Your task to perform on an android device: Open Google Image 0: 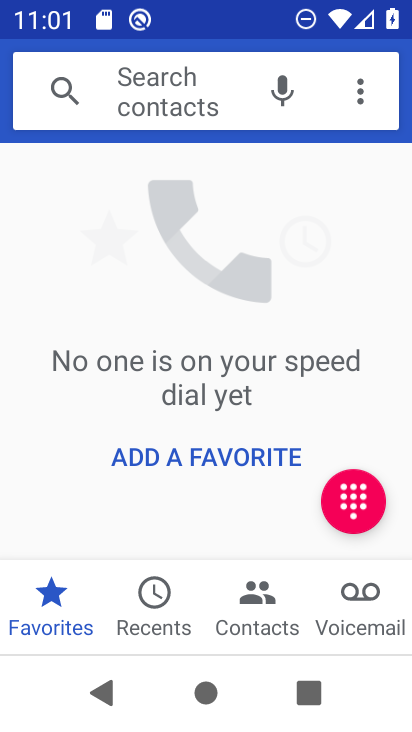
Step 0: press home button
Your task to perform on an android device: Open Google Image 1: 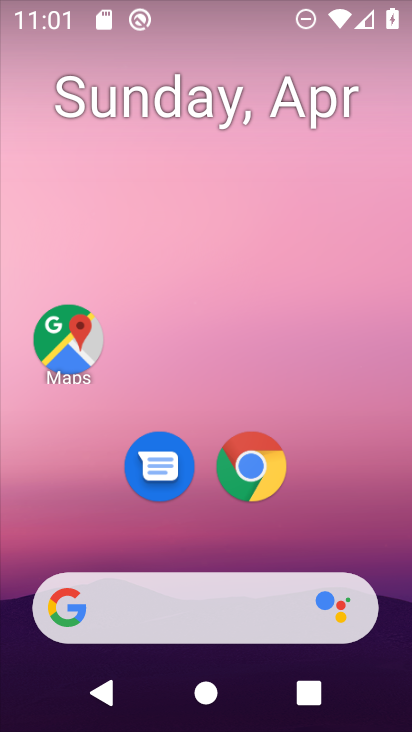
Step 1: drag from (361, 504) to (366, 98)
Your task to perform on an android device: Open Google Image 2: 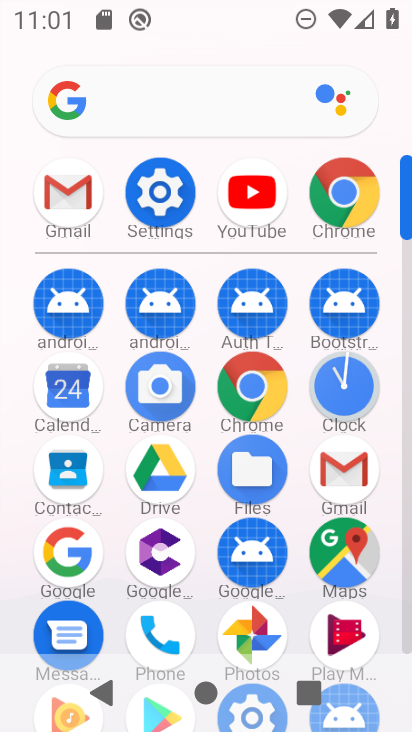
Step 2: click (64, 548)
Your task to perform on an android device: Open Google Image 3: 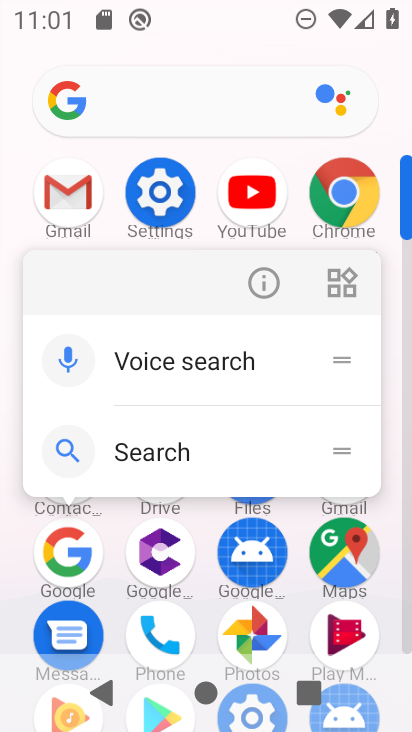
Step 3: click (64, 548)
Your task to perform on an android device: Open Google Image 4: 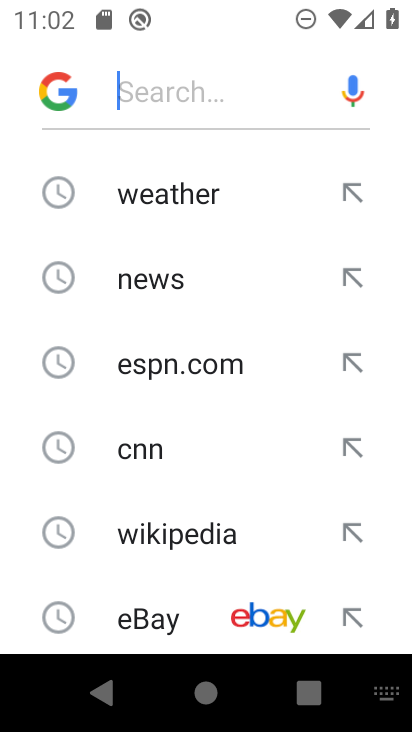
Step 4: task complete